Your task to perform on an android device: Search for pizza restaurants on Maps Image 0: 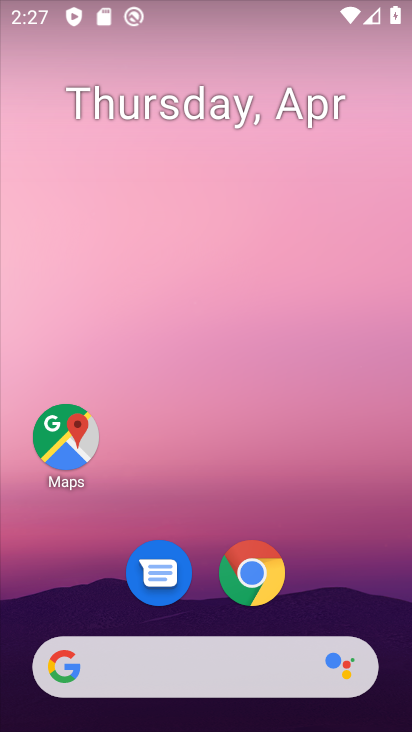
Step 0: drag from (355, 593) to (279, 25)
Your task to perform on an android device: Search for pizza restaurants on Maps Image 1: 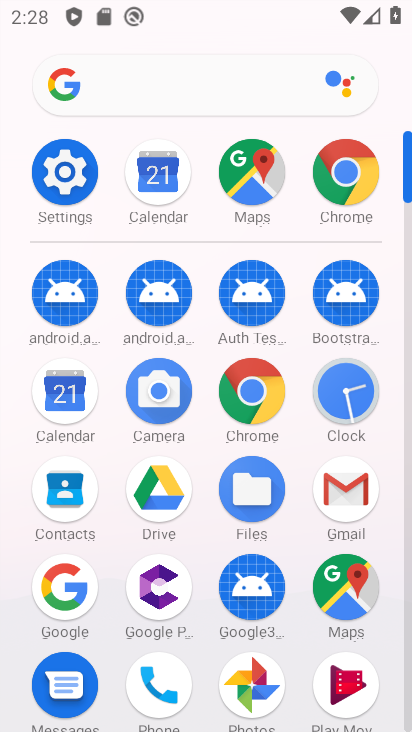
Step 1: click (342, 588)
Your task to perform on an android device: Search for pizza restaurants on Maps Image 2: 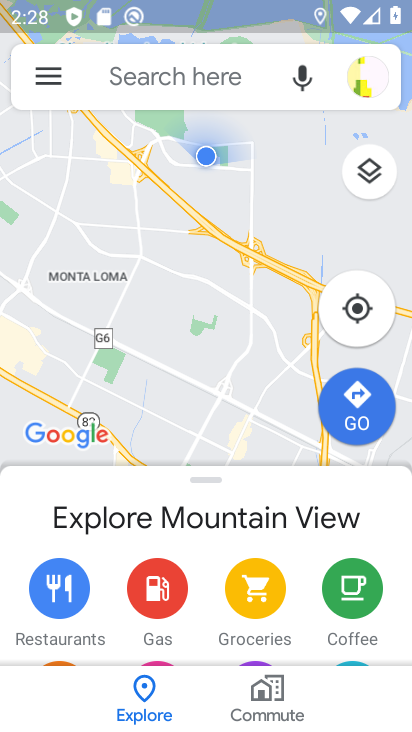
Step 2: click (136, 41)
Your task to perform on an android device: Search for pizza restaurants on Maps Image 3: 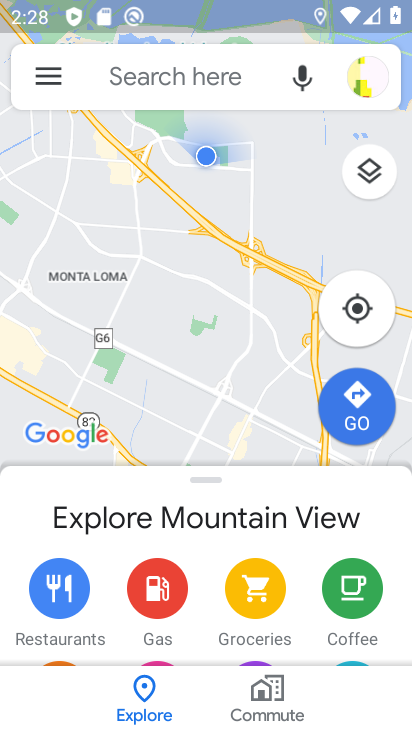
Step 3: click (131, 84)
Your task to perform on an android device: Search for pizza restaurants on Maps Image 4: 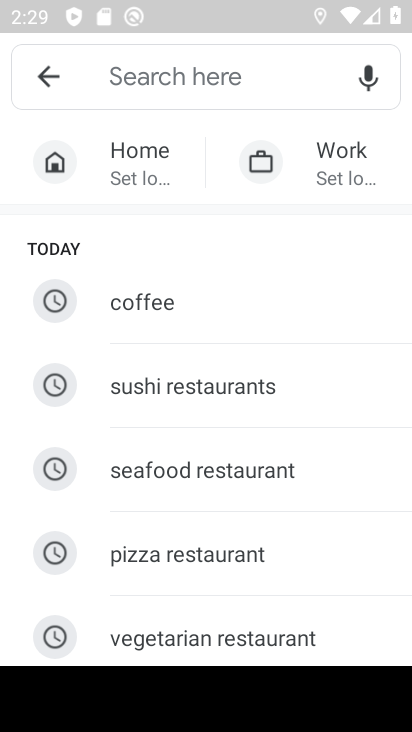
Step 4: click (157, 538)
Your task to perform on an android device: Search for pizza restaurants on Maps Image 5: 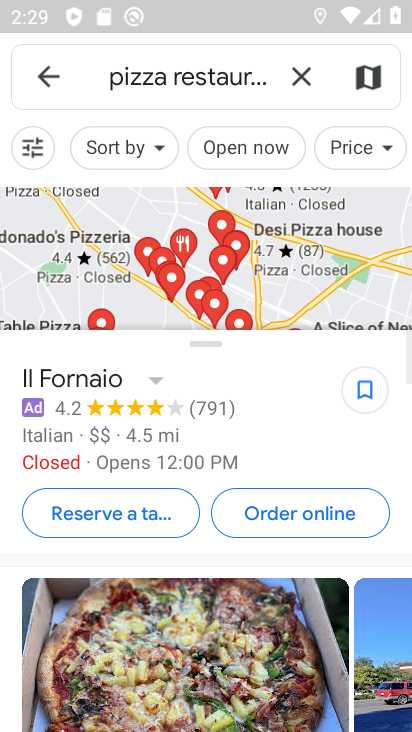
Step 5: task complete